Your task to perform on an android device: turn off location Image 0: 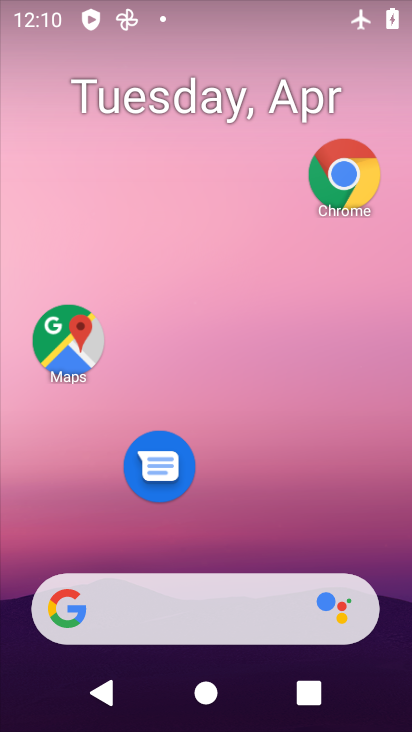
Step 0: drag from (308, 522) to (295, 415)
Your task to perform on an android device: turn off location Image 1: 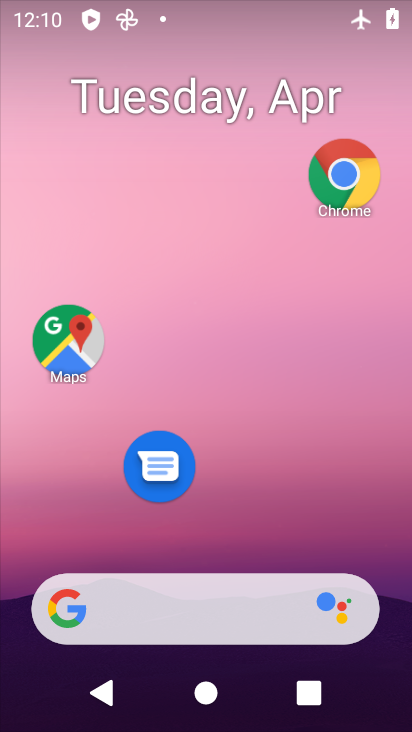
Step 1: drag from (266, 589) to (256, 299)
Your task to perform on an android device: turn off location Image 2: 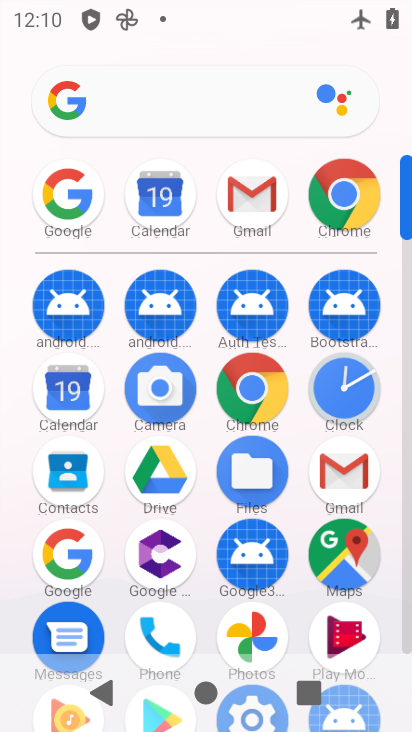
Step 2: click (407, 344)
Your task to perform on an android device: turn off location Image 3: 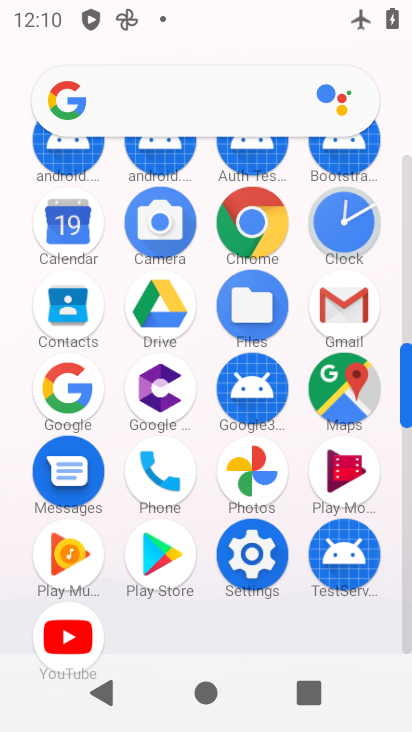
Step 3: click (261, 560)
Your task to perform on an android device: turn off location Image 4: 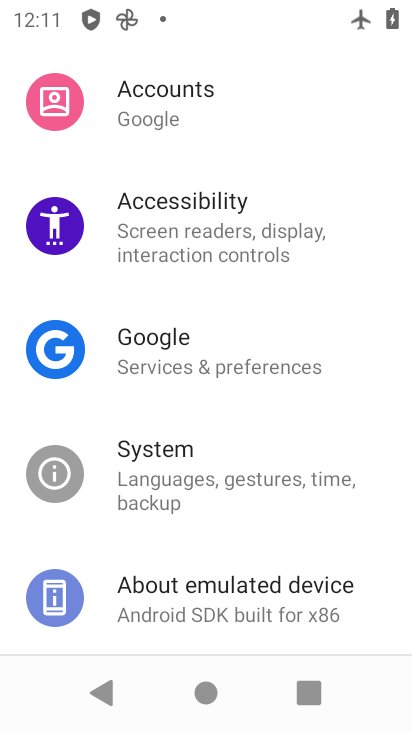
Step 4: drag from (258, 183) to (190, 575)
Your task to perform on an android device: turn off location Image 5: 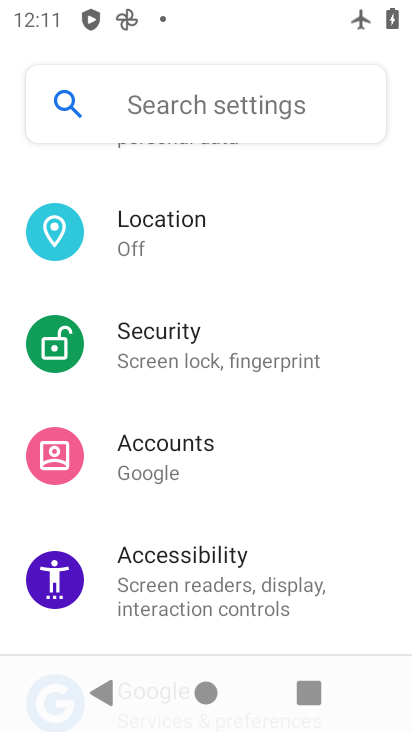
Step 5: click (232, 234)
Your task to perform on an android device: turn off location Image 6: 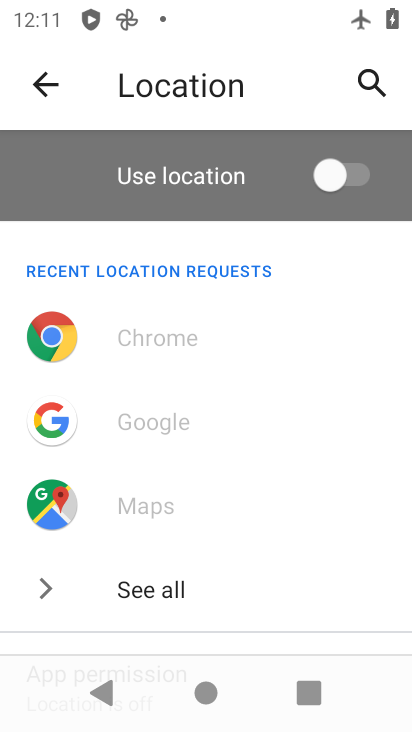
Step 6: task complete